Your task to perform on an android device: Open the web browser Image 0: 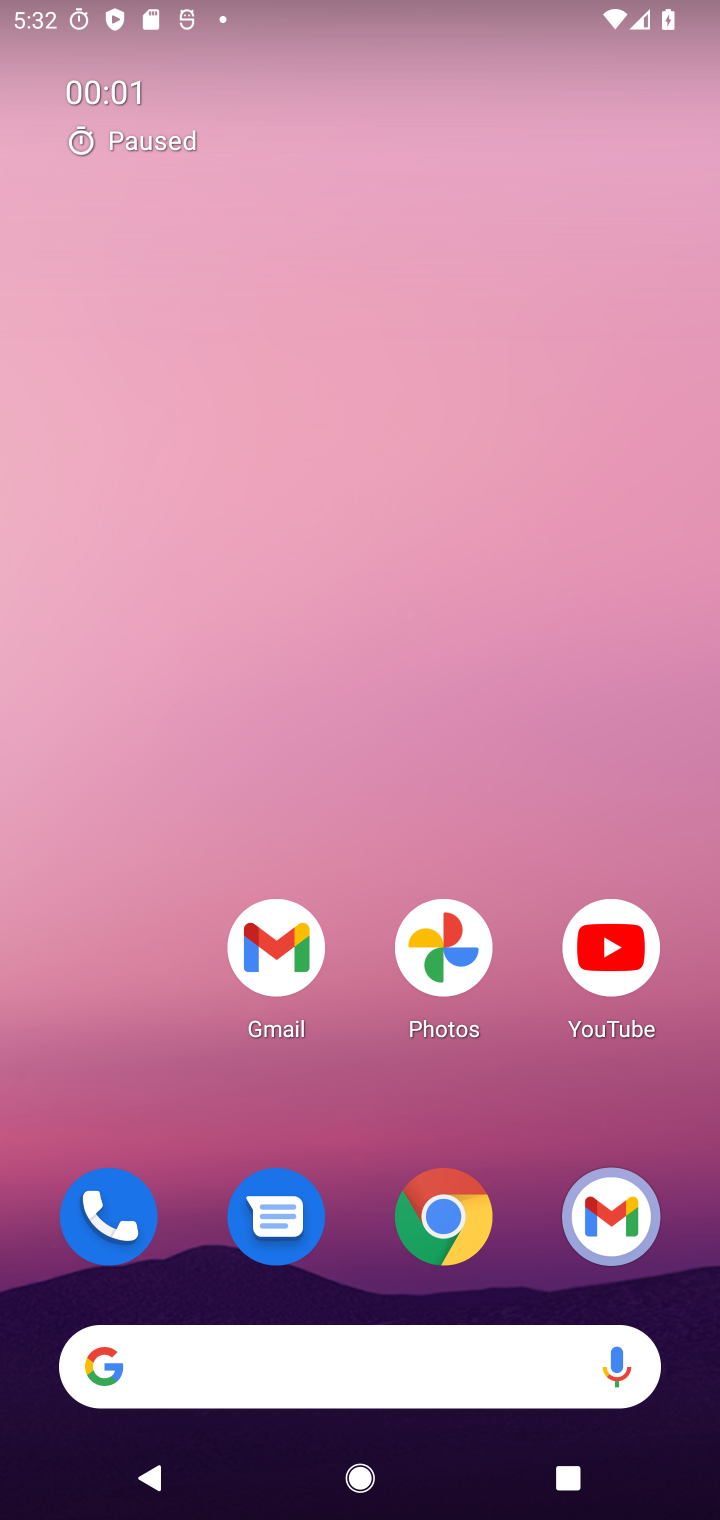
Step 0: drag from (527, 1148) to (551, 241)
Your task to perform on an android device: Open the web browser Image 1: 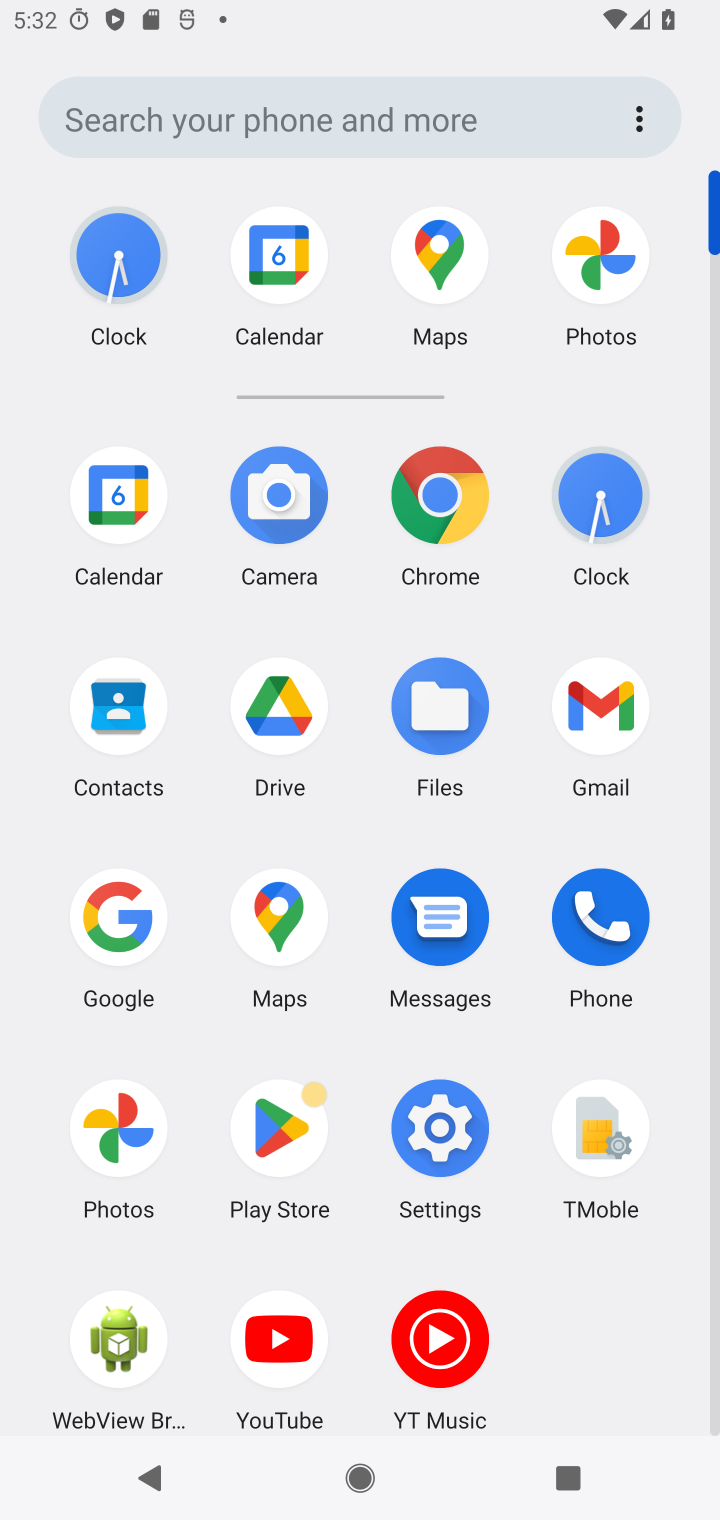
Step 1: click (446, 511)
Your task to perform on an android device: Open the web browser Image 2: 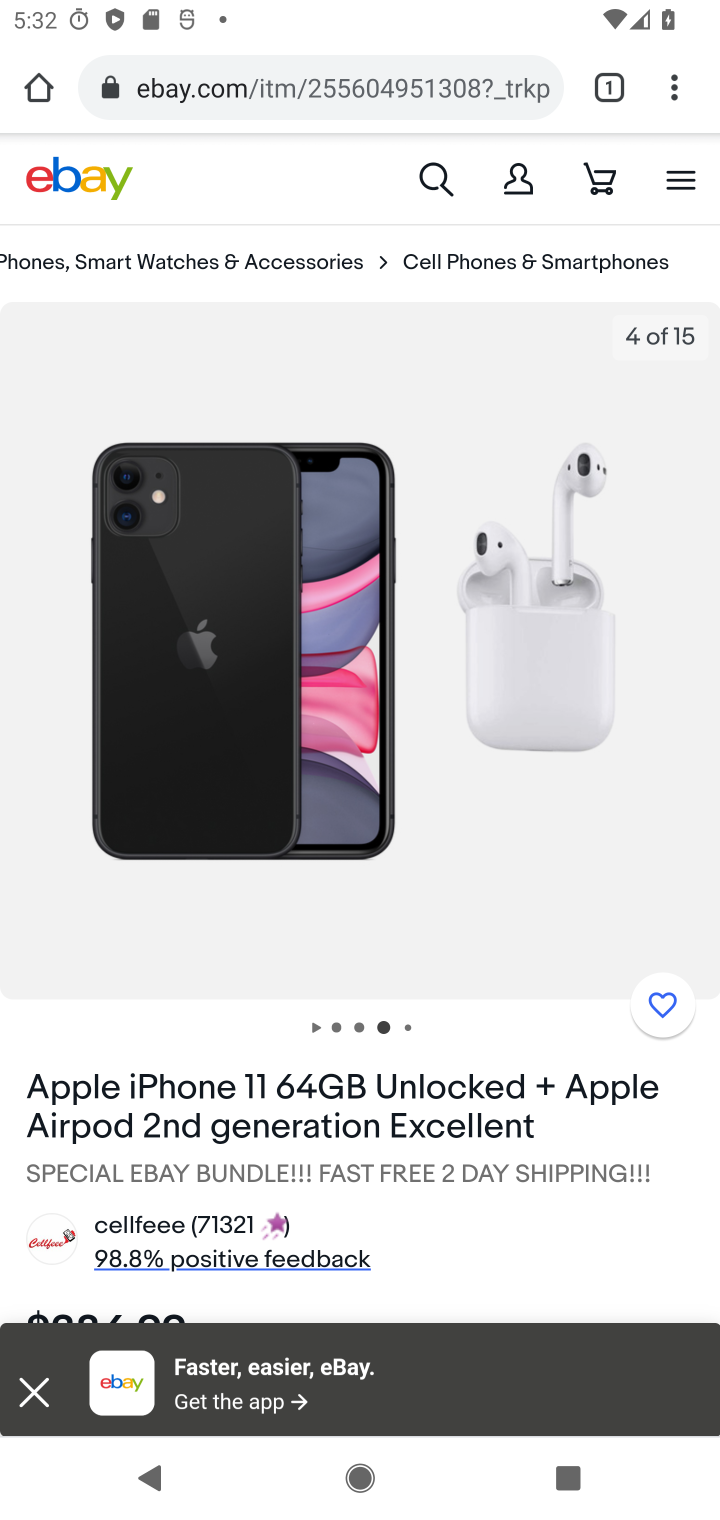
Step 2: task complete